Your task to perform on an android device: turn off javascript in the chrome app Image 0: 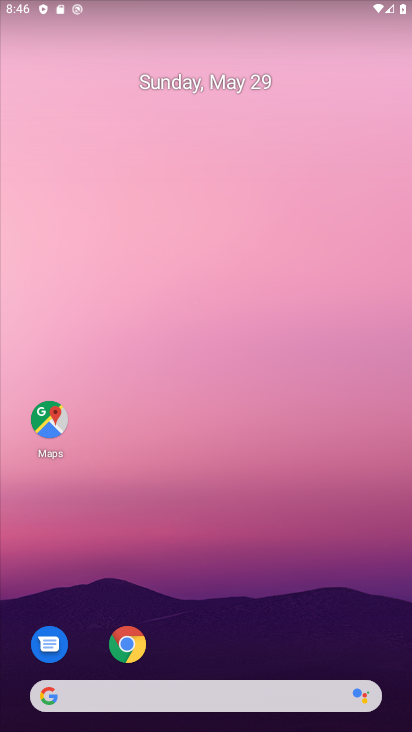
Step 0: click (208, 585)
Your task to perform on an android device: turn off javascript in the chrome app Image 1: 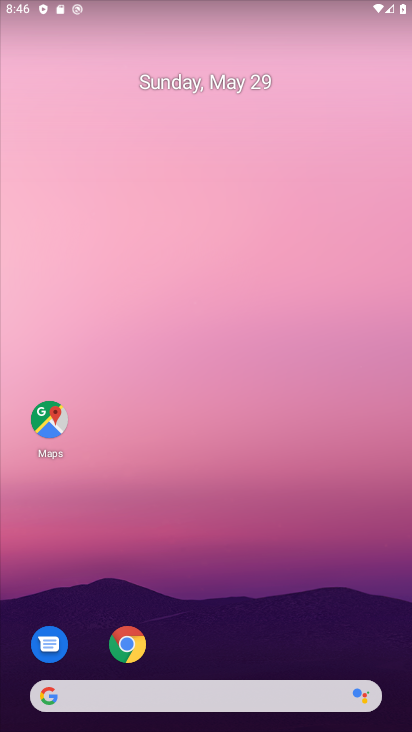
Step 1: click (134, 646)
Your task to perform on an android device: turn off javascript in the chrome app Image 2: 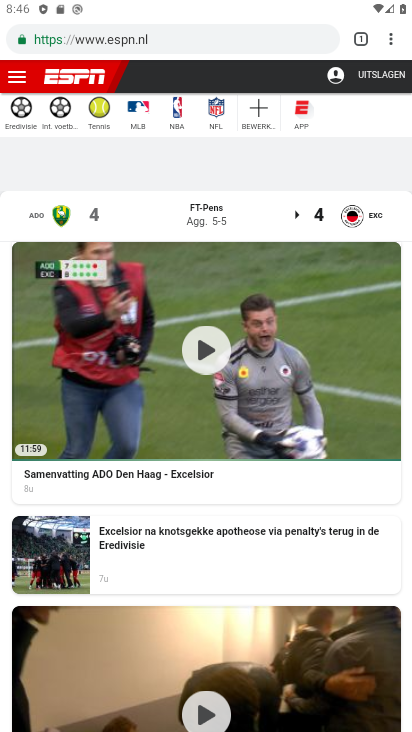
Step 2: drag from (389, 46) to (270, 429)
Your task to perform on an android device: turn off javascript in the chrome app Image 3: 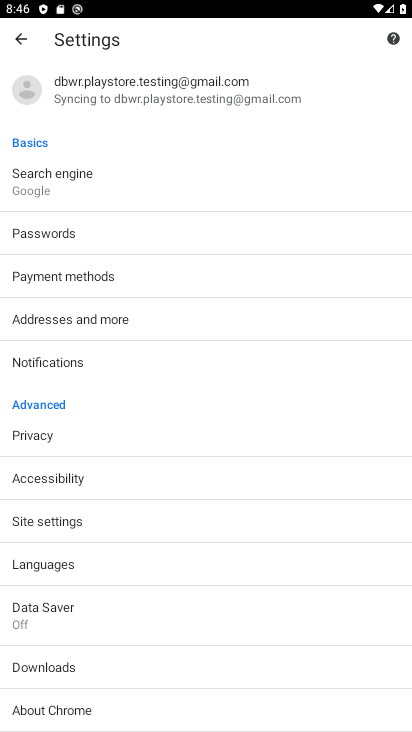
Step 3: click (104, 517)
Your task to perform on an android device: turn off javascript in the chrome app Image 4: 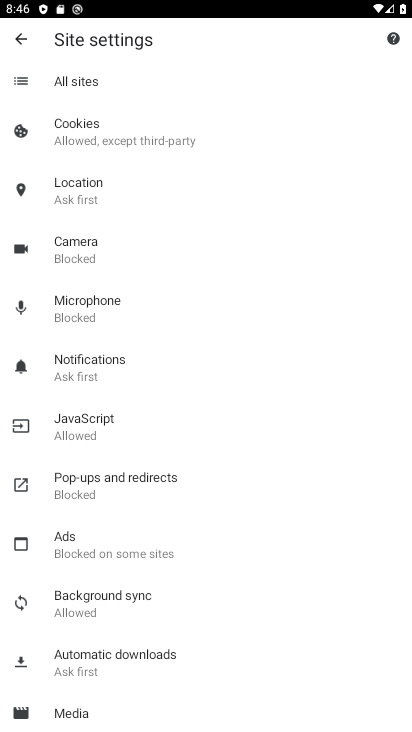
Step 4: click (143, 408)
Your task to perform on an android device: turn off javascript in the chrome app Image 5: 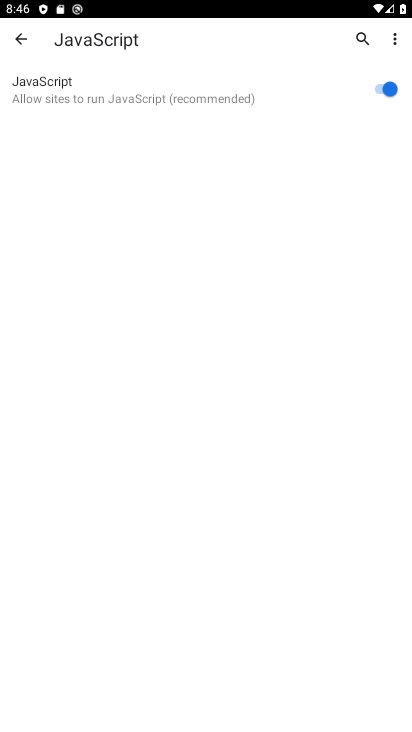
Step 5: click (386, 86)
Your task to perform on an android device: turn off javascript in the chrome app Image 6: 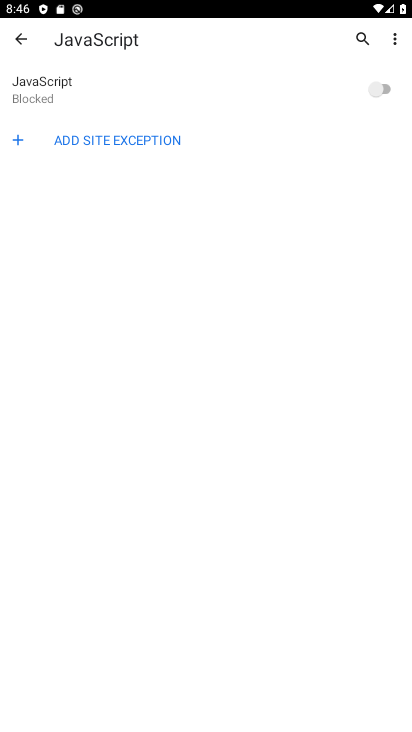
Step 6: task complete